Your task to perform on an android device: read, delete, or share a saved page in the chrome app Image 0: 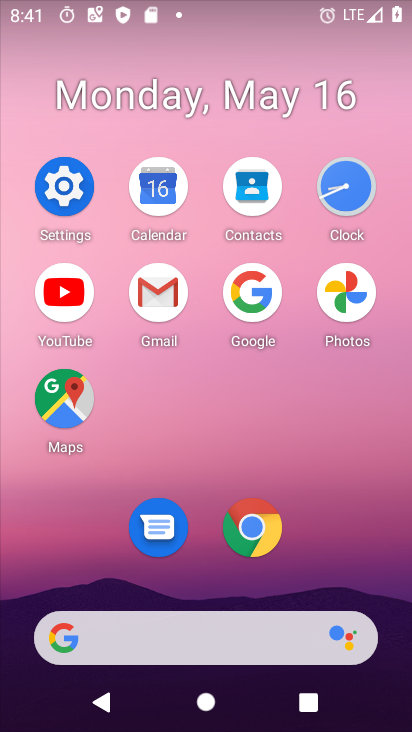
Step 0: click (251, 523)
Your task to perform on an android device: read, delete, or share a saved page in the chrome app Image 1: 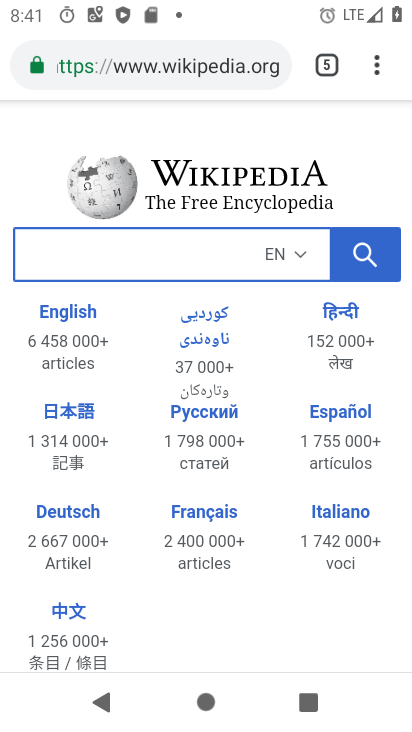
Step 1: click (385, 70)
Your task to perform on an android device: read, delete, or share a saved page in the chrome app Image 2: 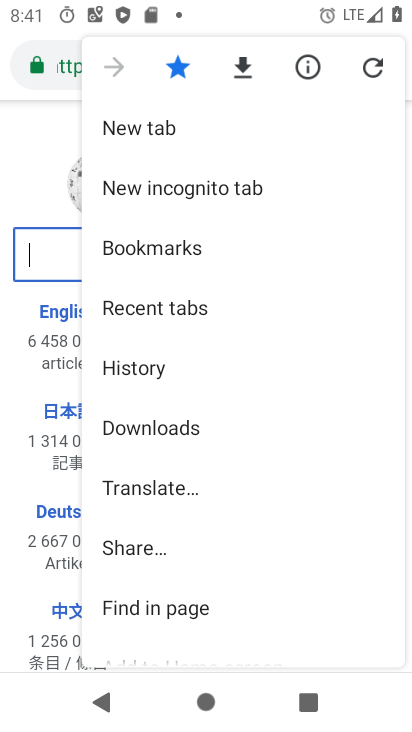
Step 2: click (197, 436)
Your task to perform on an android device: read, delete, or share a saved page in the chrome app Image 3: 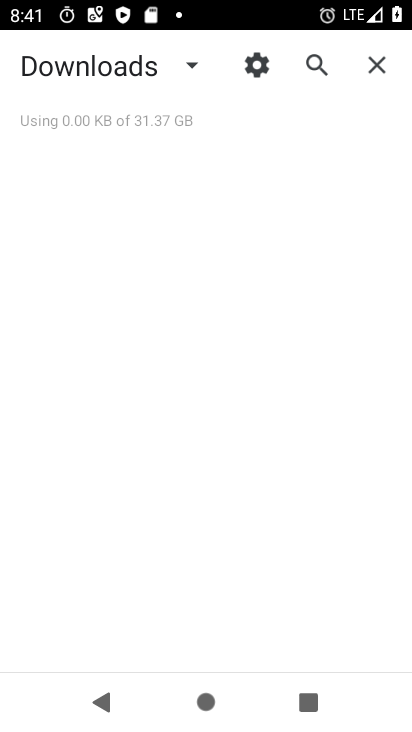
Step 3: task complete